Your task to perform on an android device: see tabs open on other devices in the chrome app Image 0: 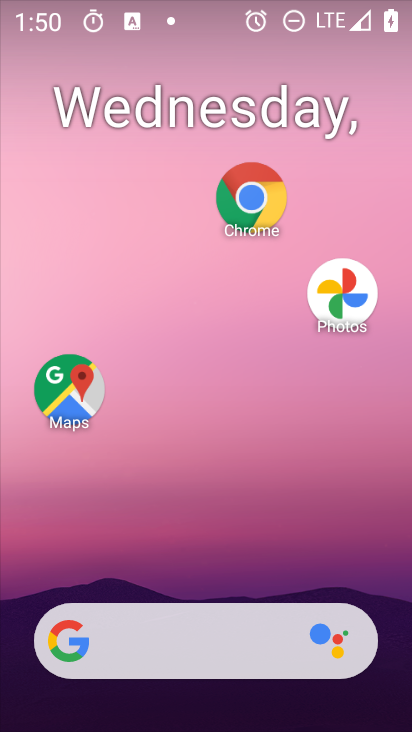
Step 0: drag from (272, 625) to (256, 33)
Your task to perform on an android device: see tabs open on other devices in the chrome app Image 1: 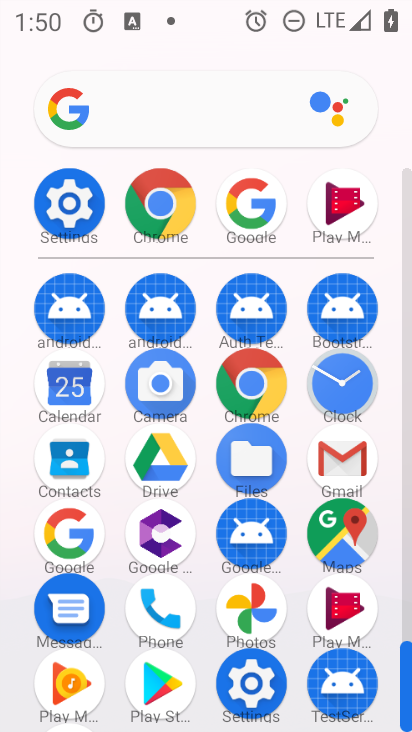
Step 1: click (266, 400)
Your task to perform on an android device: see tabs open on other devices in the chrome app Image 2: 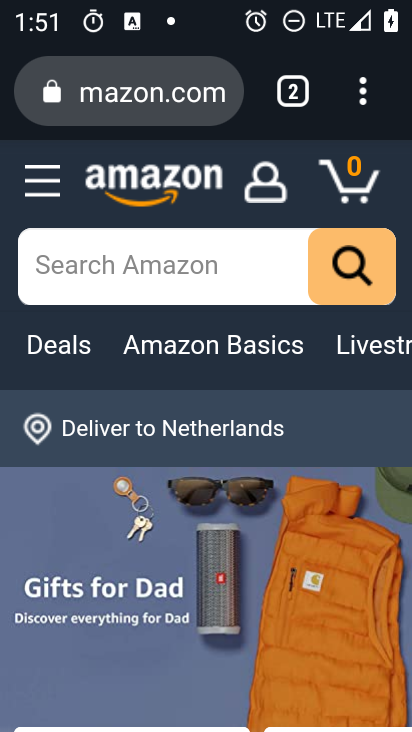
Step 2: click (367, 87)
Your task to perform on an android device: see tabs open on other devices in the chrome app Image 3: 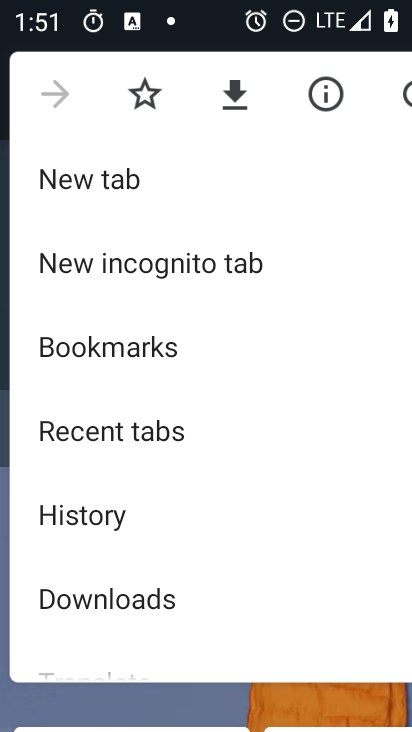
Step 3: task complete